Your task to perform on an android device: refresh tabs in the chrome app Image 0: 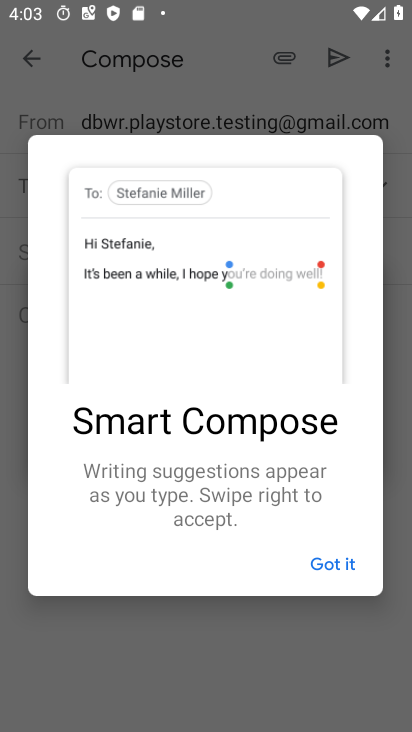
Step 0: click (351, 556)
Your task to perform on an android device: refresh tabs in the chrome app Image 1: 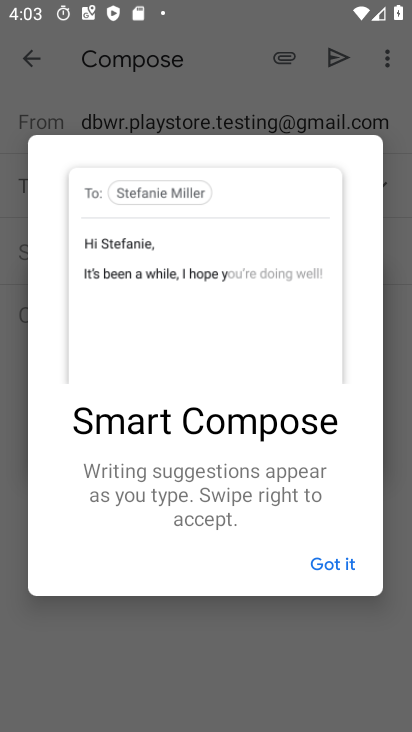
Step 1: click (350, 557)
Your task to perform on an android device: refresh tabs in the chrome app Image 2: 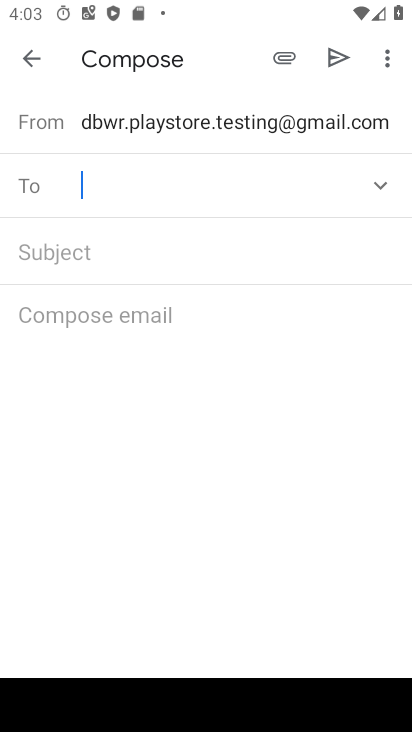
Step 2: click (38, 57)
Your task to perform on an android device: refresh tabs in the chrome app Image 3: 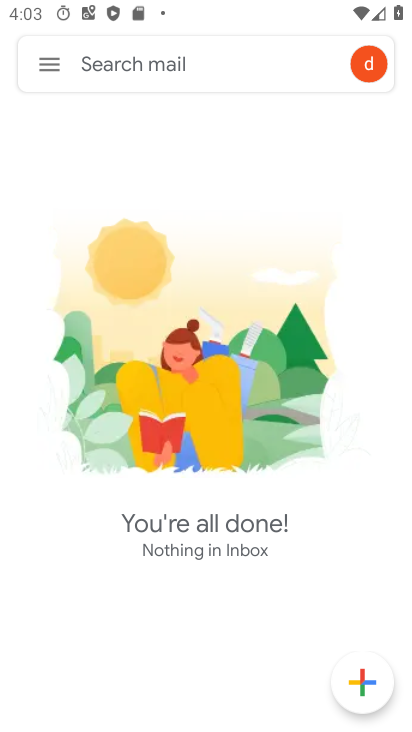
Step 3: click (47, 63)
Your task to perform on an android device: refresh tabs in the chrome app Image 4: 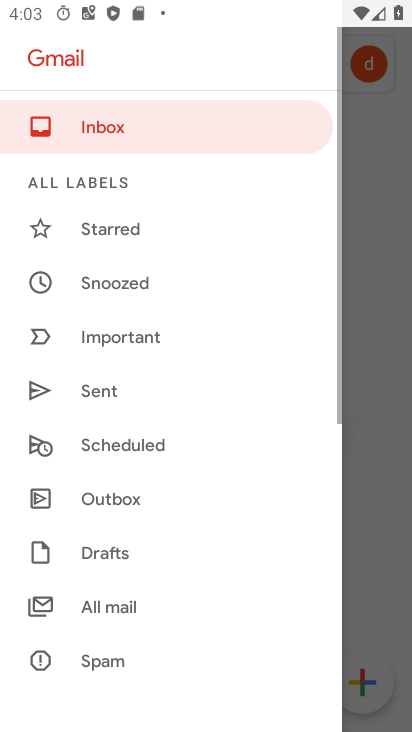
Step 4: press home button
Your task to perform on an android device: refresh tabs in the chrome app Image 5: 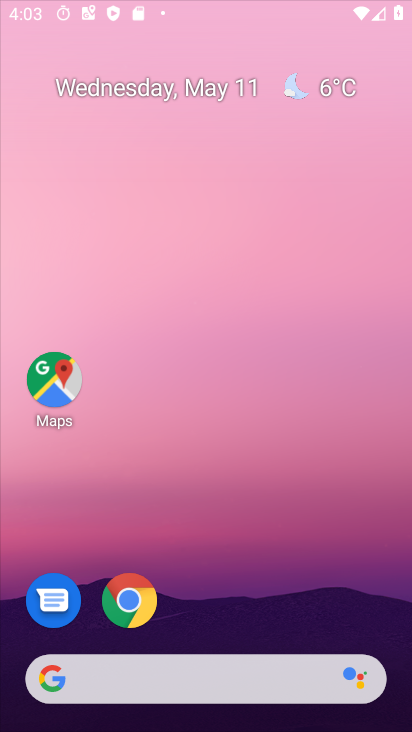
Step 5: press back button
Your task to perform on an android device: refresh tabs in the chrome app Image 6: 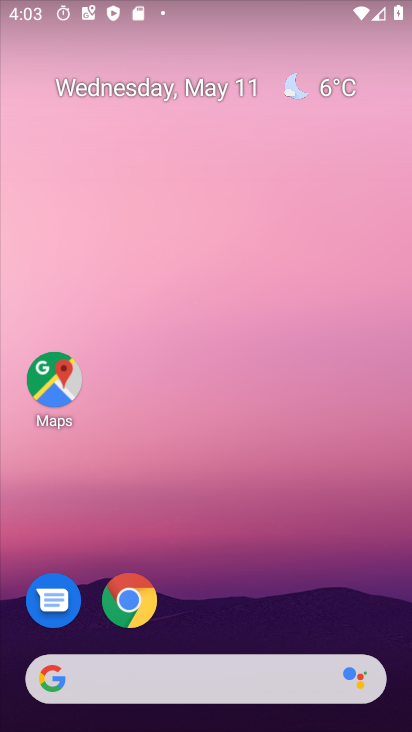
Step 6: drag from (122, 170) to (70, 2)
Your task to perform on an android device: refresh tabs in the chrome app Image 7: 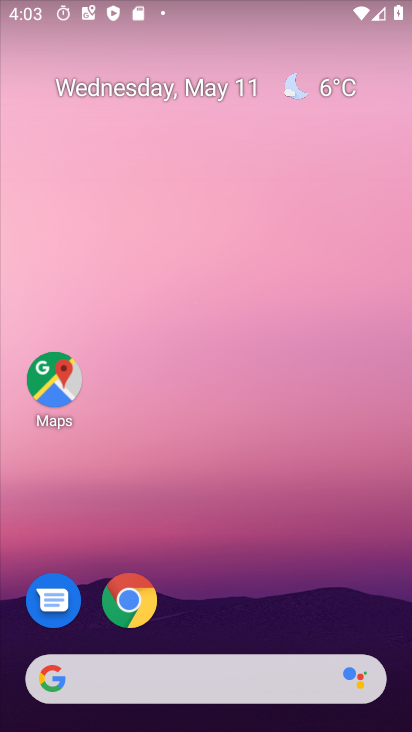
Step 7: drag from (286, 573) to (133, 121)
Your task to perform on an android device: refresh tabs in the chrome app Image 8: 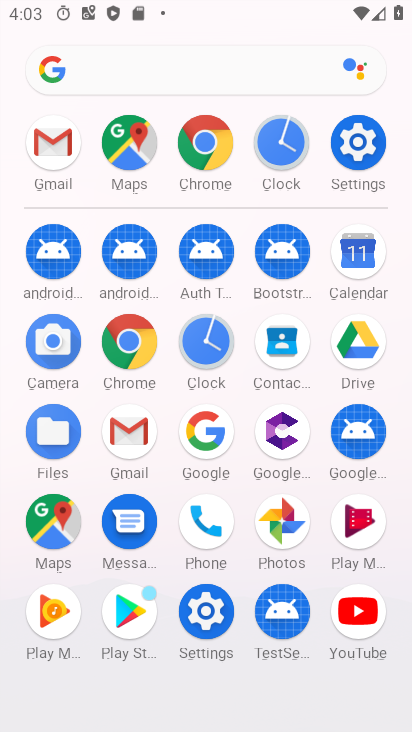
Step 8: click (199, 139)
Your task to perform on an android device: refresh tabs in the chrome app Image 9: 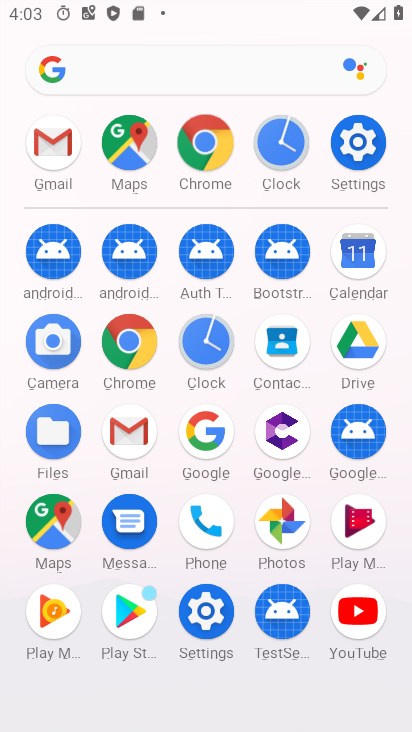
Step 9: click (200, 137)
Your task to perform on an android device: refresh tabs in the chrome app Image 10: 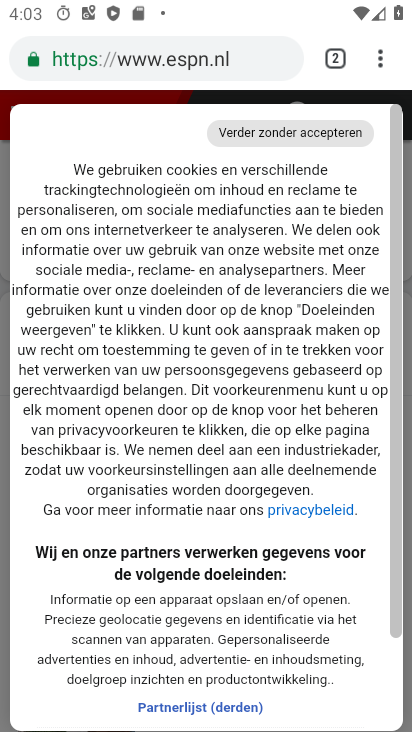
Step 10: click (376, 69)
Your task to perform on an android device: refresh tabs in the chrome app Image 11: 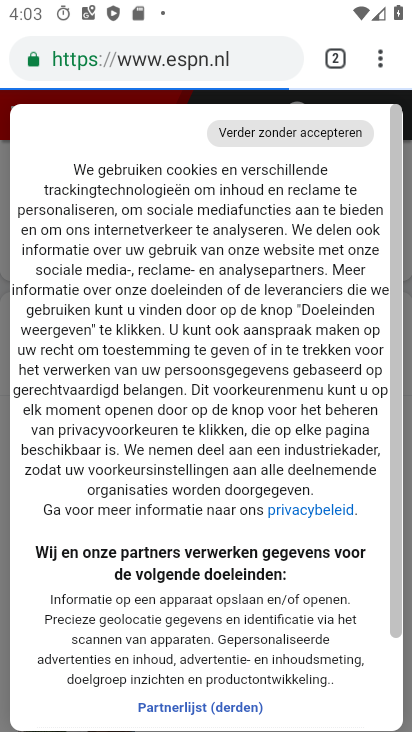
Step 11: click (376, 65)
Your task to perform on an android device: refresh tabs in the chrome app Image 12: 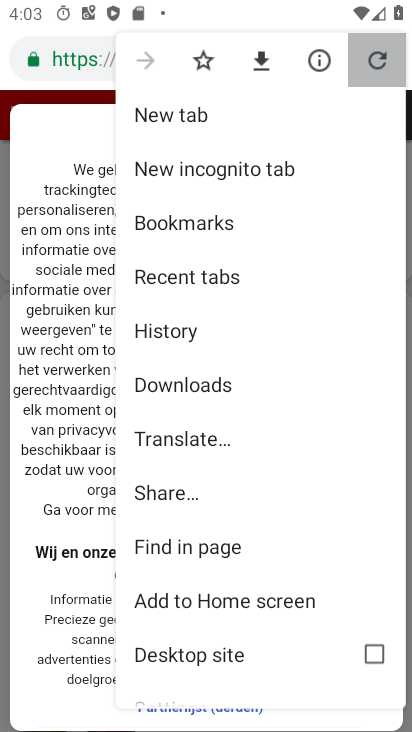
Step 12: click (379, 62)
Your task to perform on an android device: refresh tabs in the chrome app Image 13: 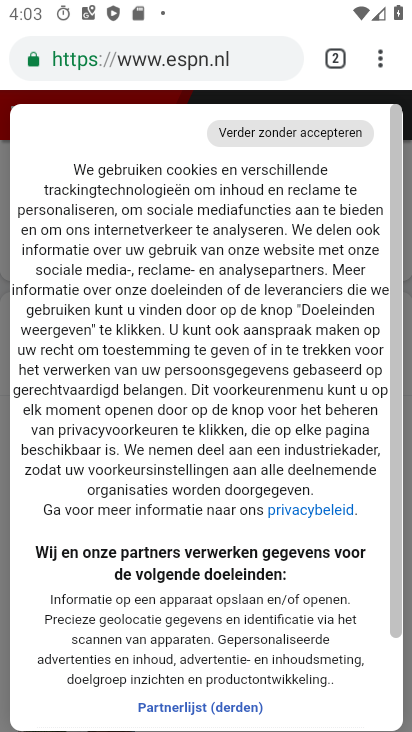
Step 13: task complete